Your task to perform on an android device: Toggle the flashlight Image 0: 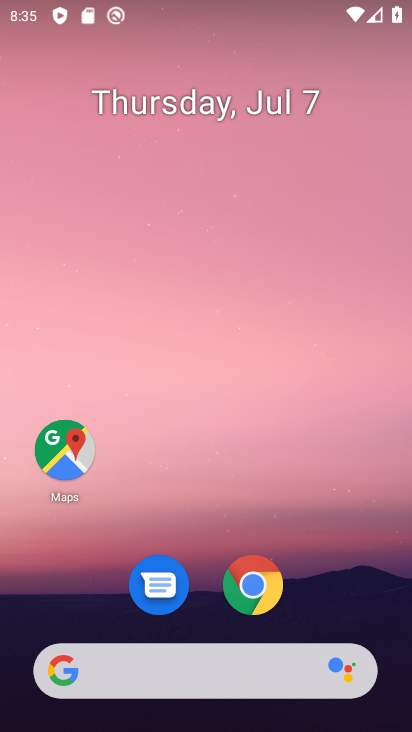
Step 0: drag from (281, 502) to (308, 0)
Your task to perform on an android device: Toggle the flashlight Image 1: 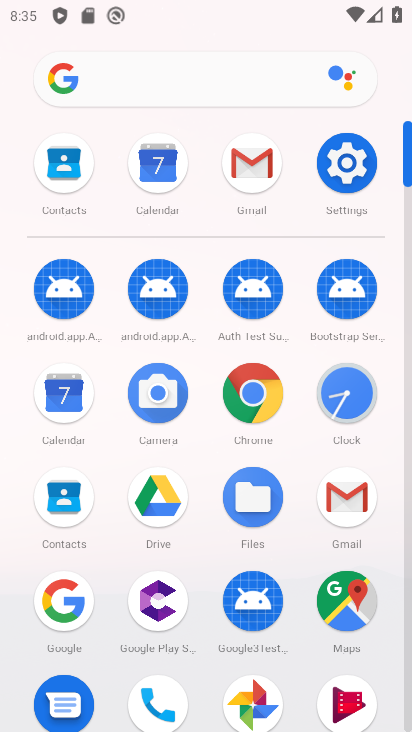
Step 1: click (352, 162)
Your task to perform on an android device: Toggle the flashlight Image 2: 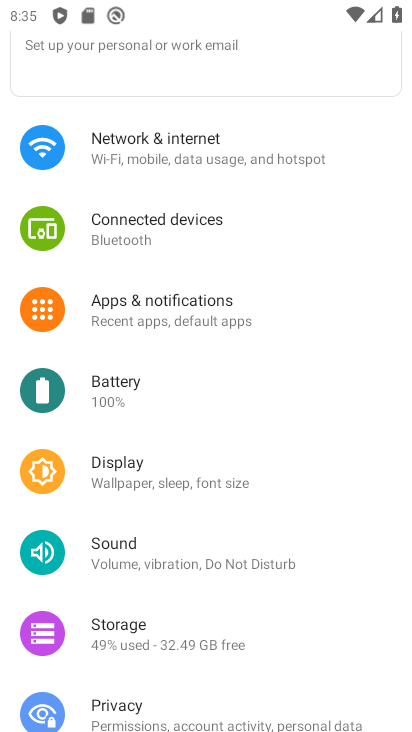
Step 2: drag from (243, 313) to (253, 625)
Your task to perform on an android device: Toggle the flashlight Image 3: 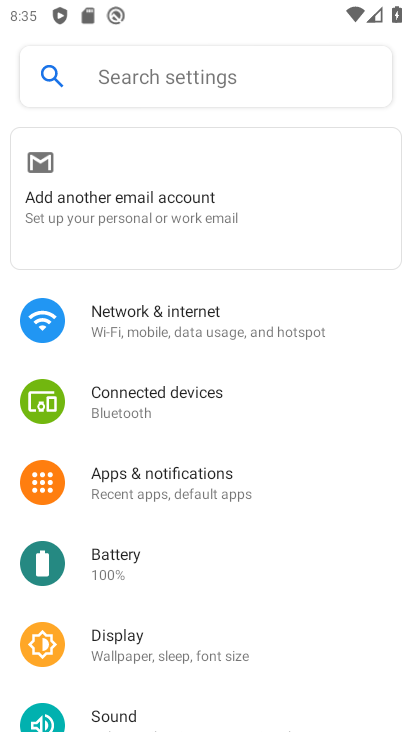
Step 3: click (278, 79)
Your task to perform on an android device: Toggle the flashlight Image 4: 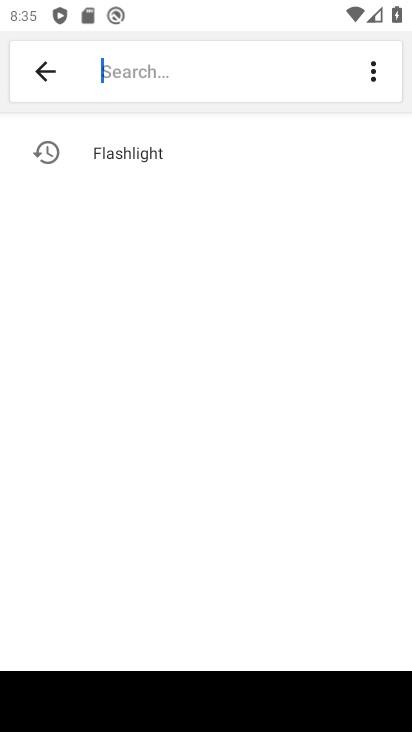
Step 4: click (150, 154)
Your task to perform on an android device: Toggle the flashlight Image 5: 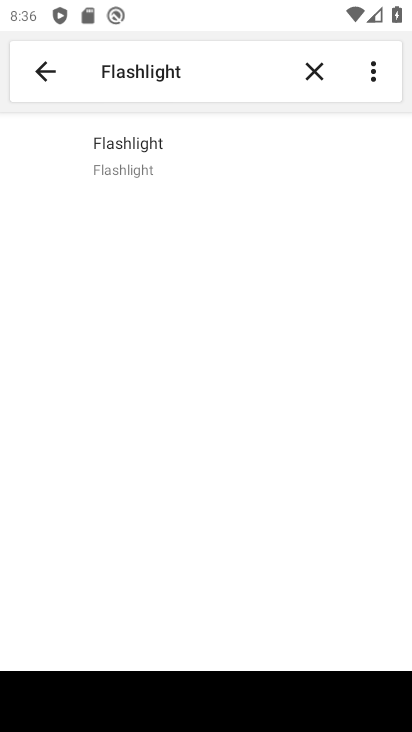
Step 5: task complete